Your task to perform on an android device: Open the web browser Image 0: 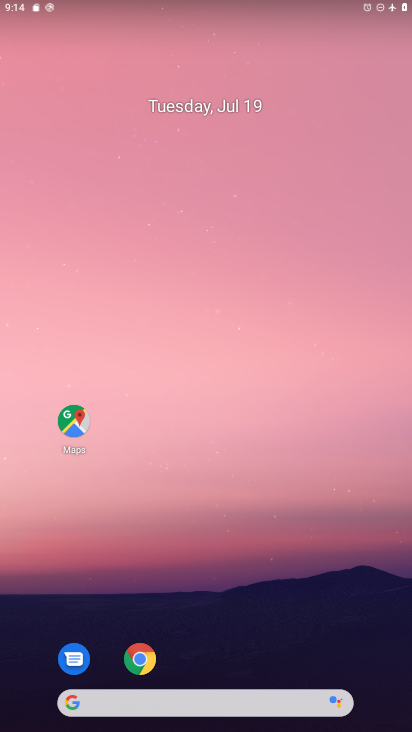
Step 0: drag from (181, 640) to (193, 382)
Your task to perform on an android device: Open the web browser Image 1: 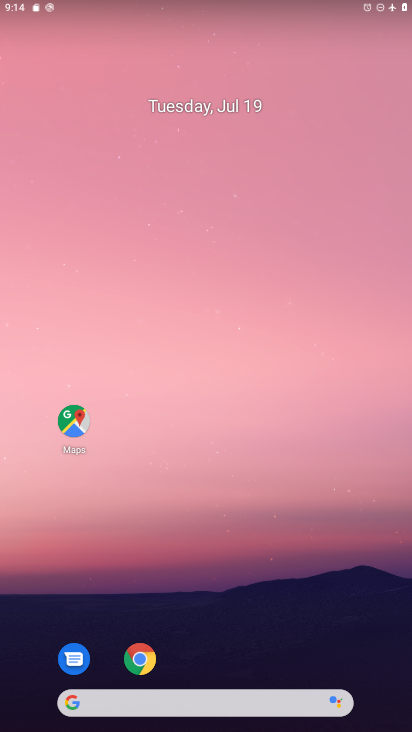
Step 1: click (145, 661)
Your task to perform on an android device: Open the web browser Image 2: 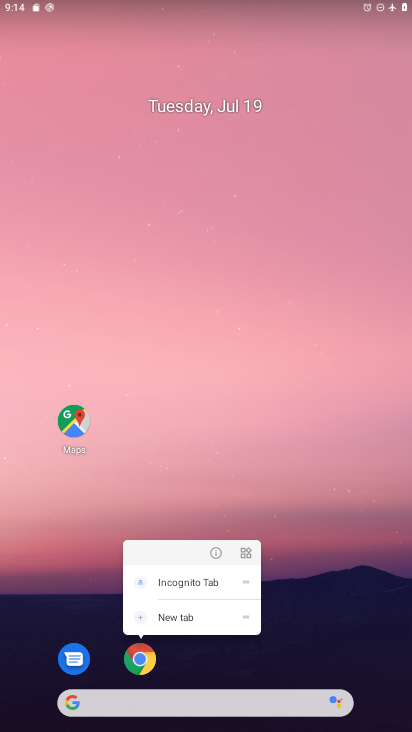
Step 2: click (146, 659)
Your task to perform on an android device: Open the web browser Image 3: 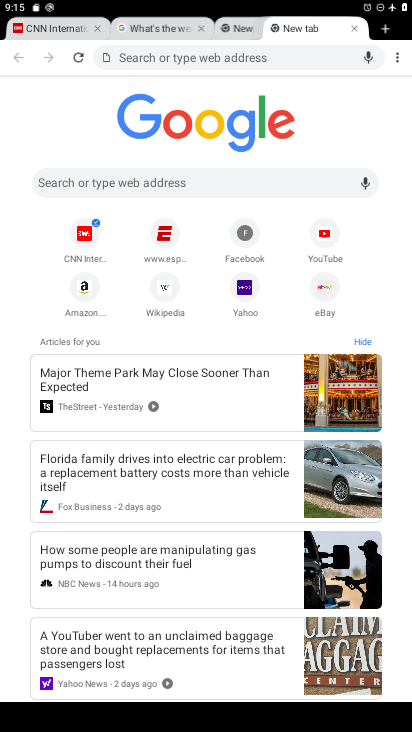
Step 3: task complete